Your task to perform on an android device: Clear all items from cart on newegg.com. Image 0: 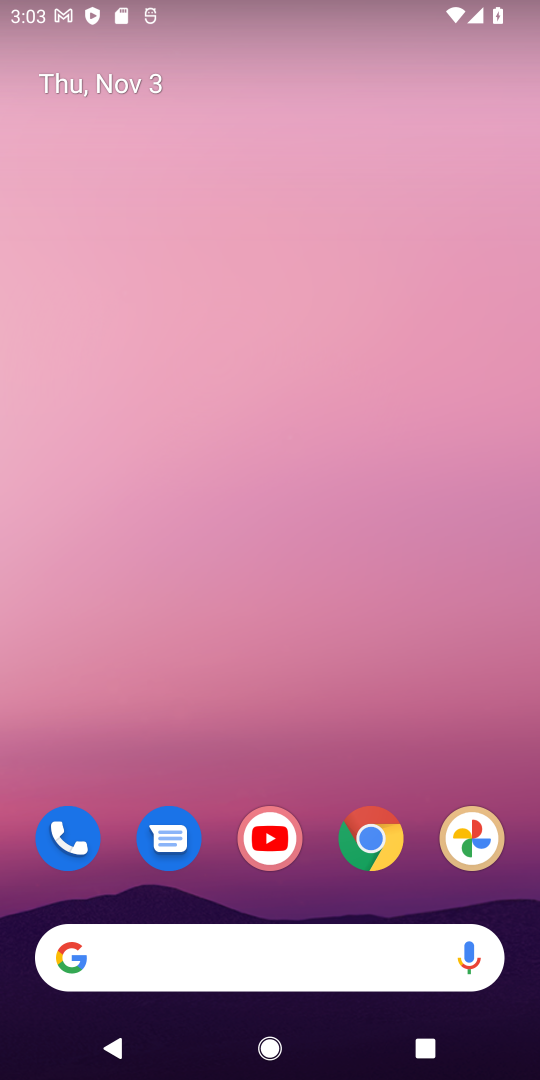
Step 0: drag from (311, 911) to (270, 0)
Your task to perform on an android device: Clear all items from cart on newegg.com. Image 1: 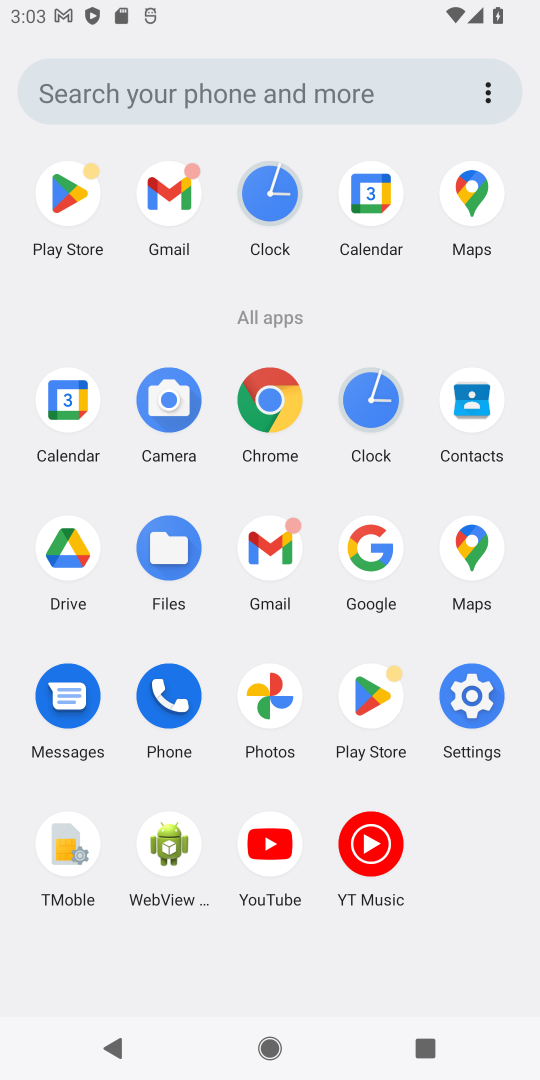
Step 1: click (282, 399)
Your task to perform on an android device: Clear all items from cart on newegg.com. Image 2: 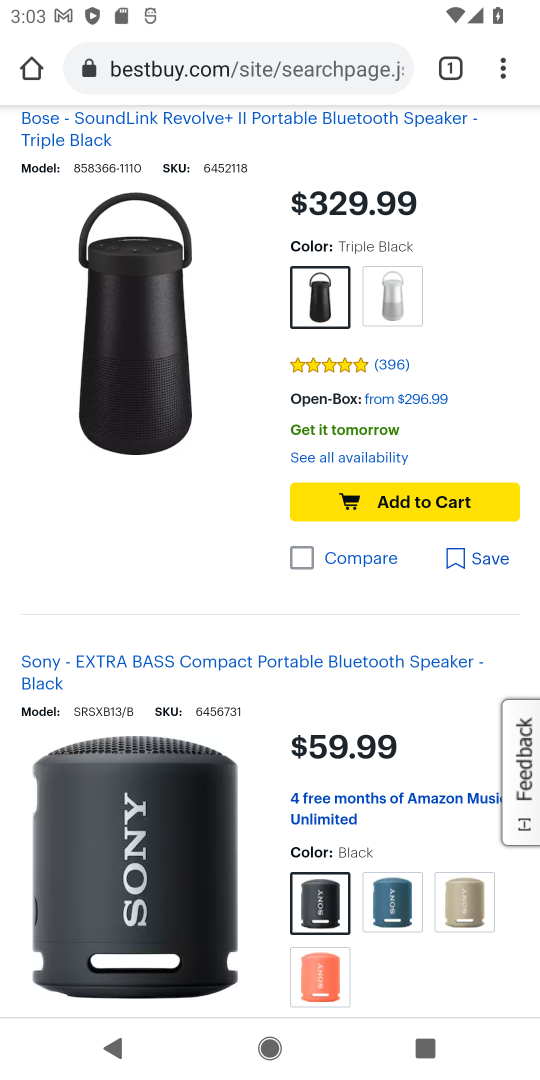
Step 2: click (321, 79)
Your task to perform on an android device: Clear all items from cart on newegg.com. Image 3: 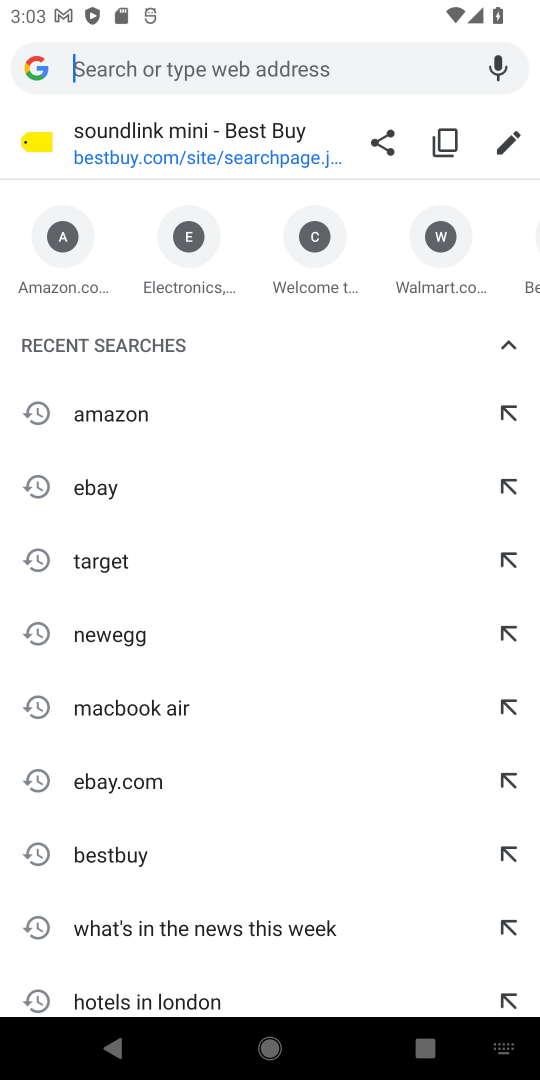
Step 3: type "newegg.com"
Your task to perform on an android device: Clear all items from cart on newegg.com. Image 4: 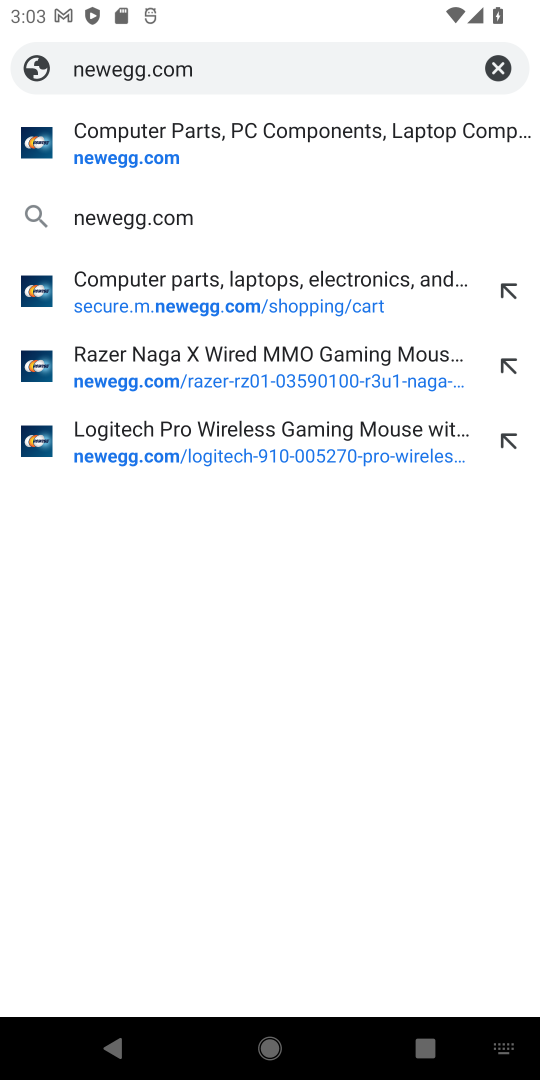
Step 4: press enter
Your task to perform on an android device: Clear all items from cart on newegg.com. Image 5: 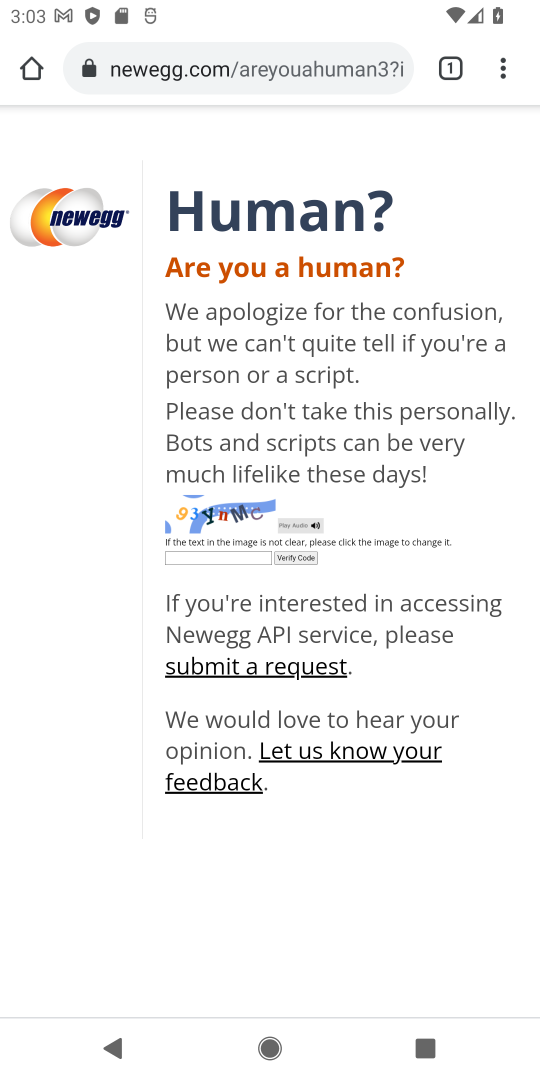
Step 5: click (227, 561)
Your task to perform on an android device: Clear all items from cart on newegg.com. Image 6: 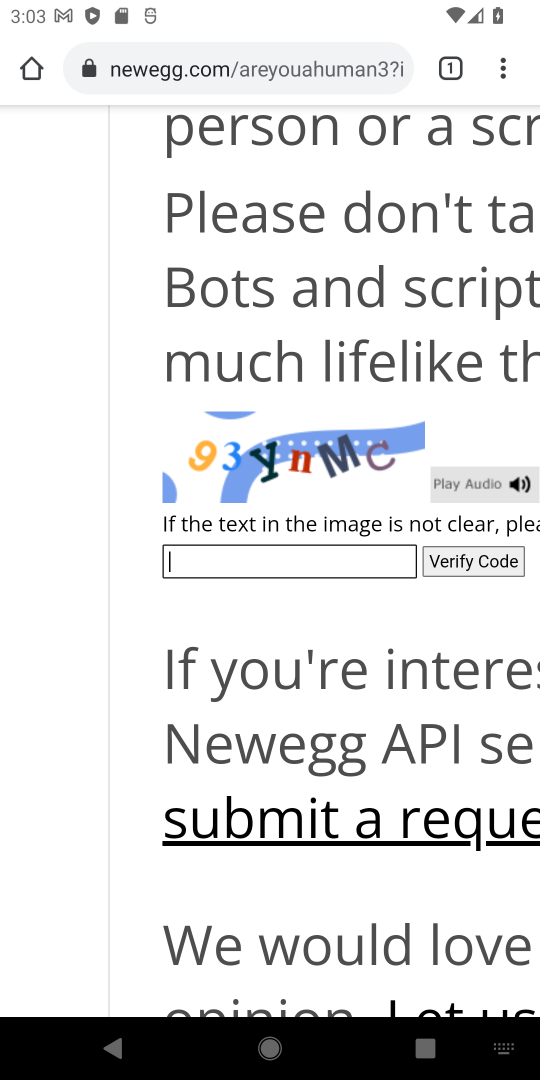
Step 6: type "g3YnMC"
Your task to perform on an android device: Clear all items from cart on newegg.com. Image 7: 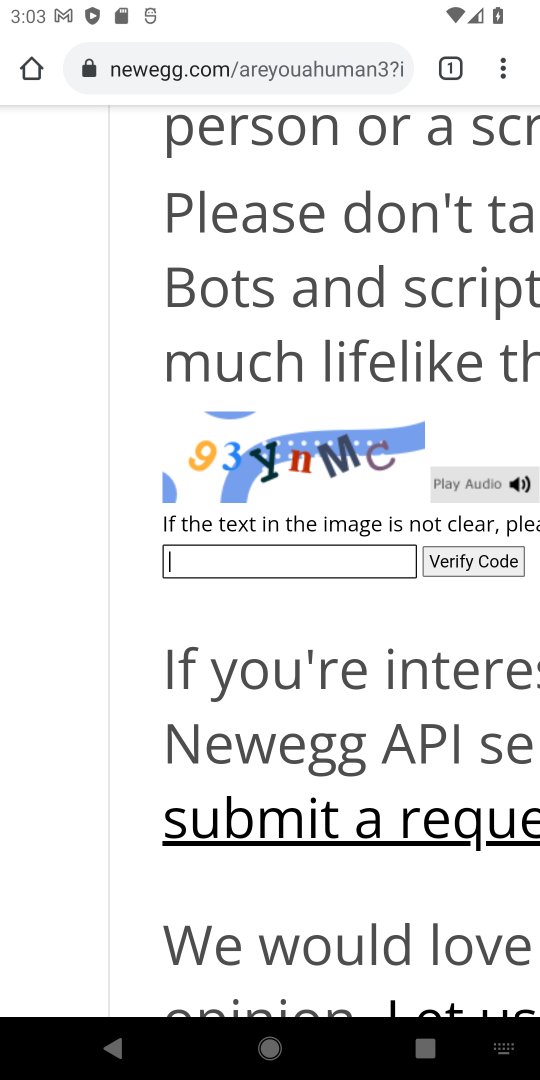
Step 7: type ""
Your task to perform on an android device: Clear all items from cart on newegg.com. Image 8: 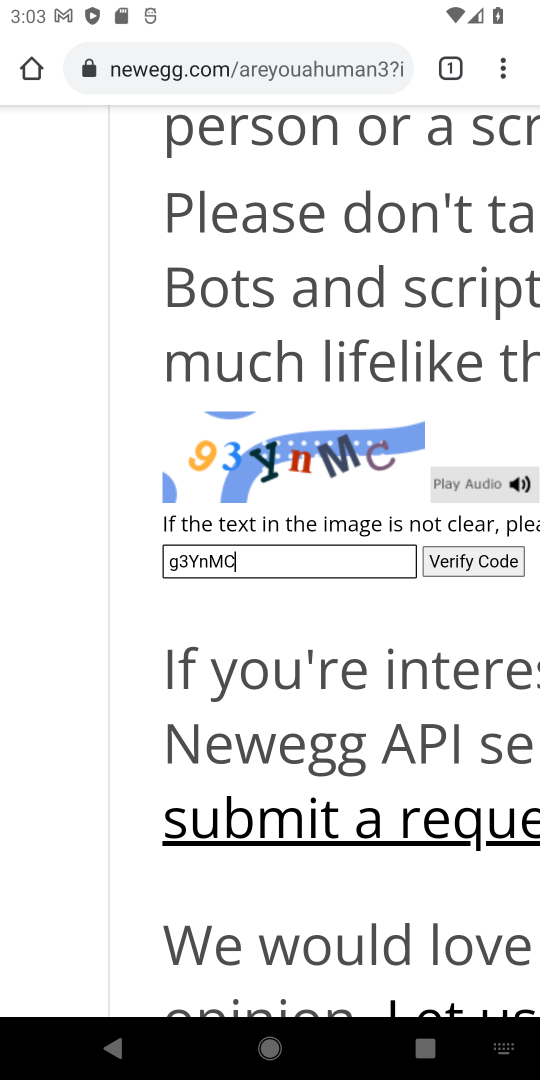
Step 8: click (466, 558)
Your task to perform on an android device: Clear all items from cart on newegg.com. Image 9: 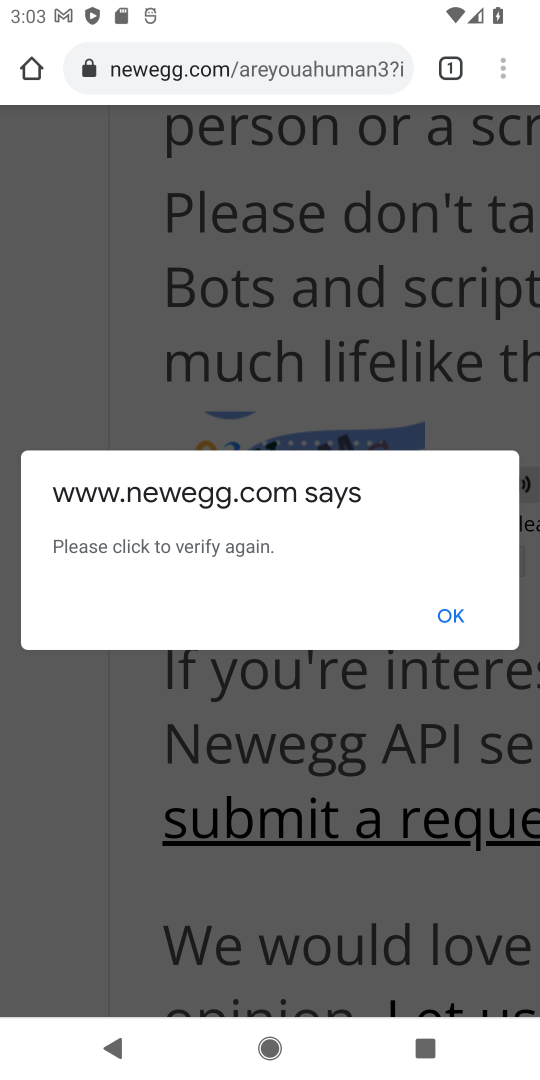
Step 9: click (463, 608)
Your task to perform on an android device: Clear all items from cart on newegg.com. Image 10: 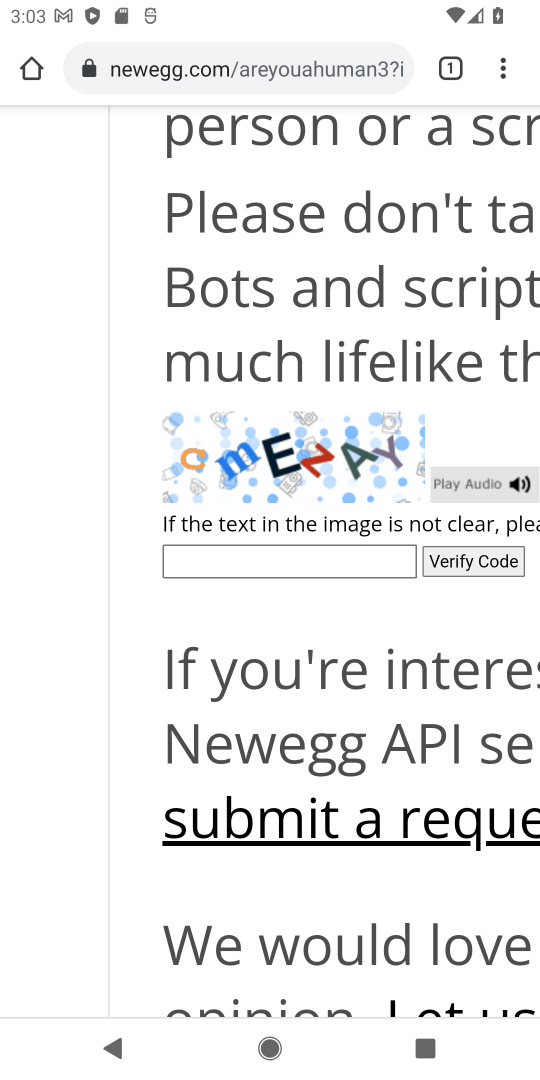
Step 10: click (300, 586)
Your task to perform on an android device: Clear all items from cart on newegg.com. Image 11: 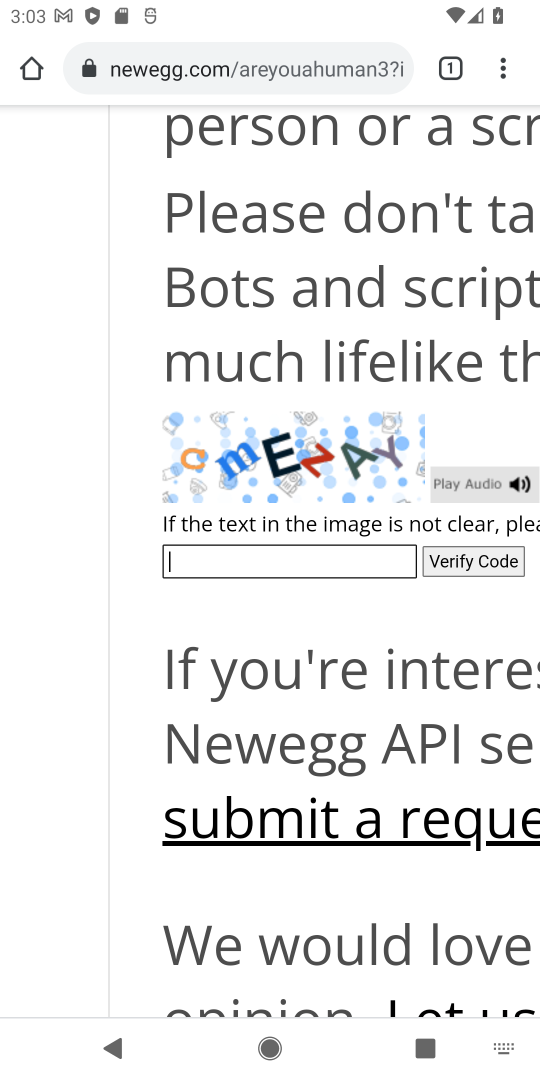
Step 11: click (298, 564)
Your task to perform on an android device: Clear all items from cart on newegg.com. Image 12: 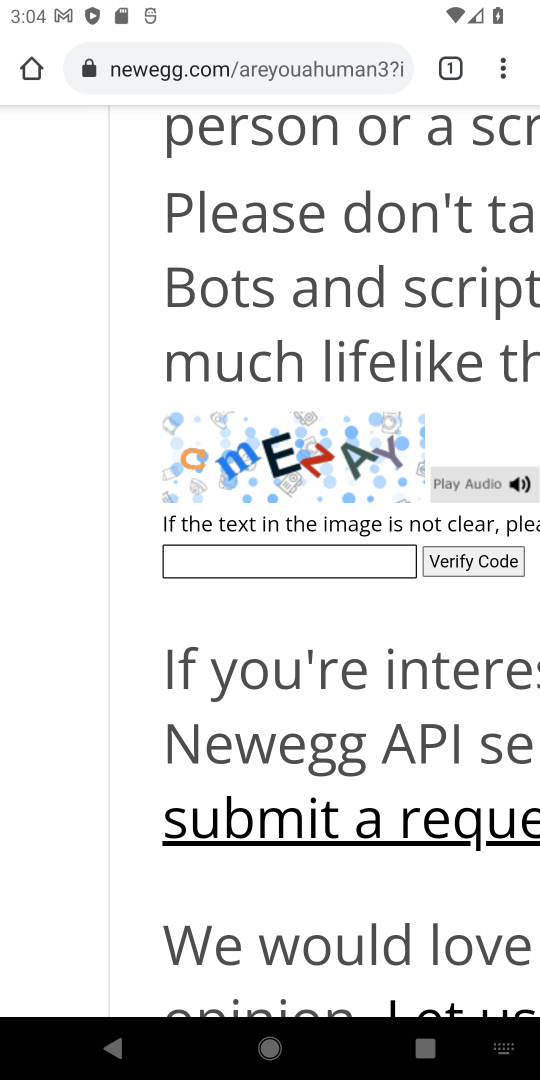
Step 12: type "cmEzAY"
Your task to perform on an android device: Clear all items from cart on newegg.com. Image 13: 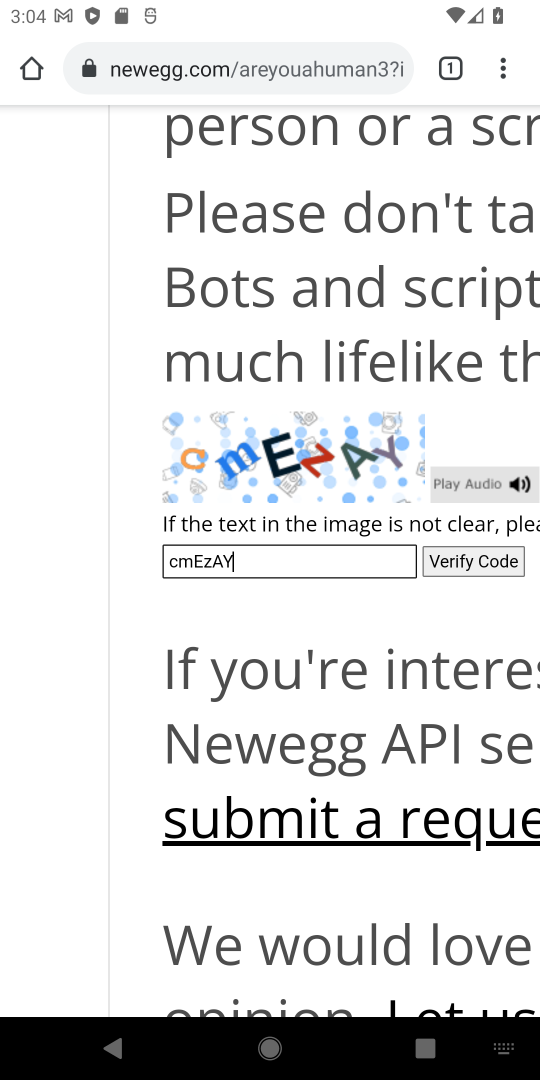
Step 13: press enter
Your task to perform on an android device: Clear all items from cart on newegg.com. Image 14: 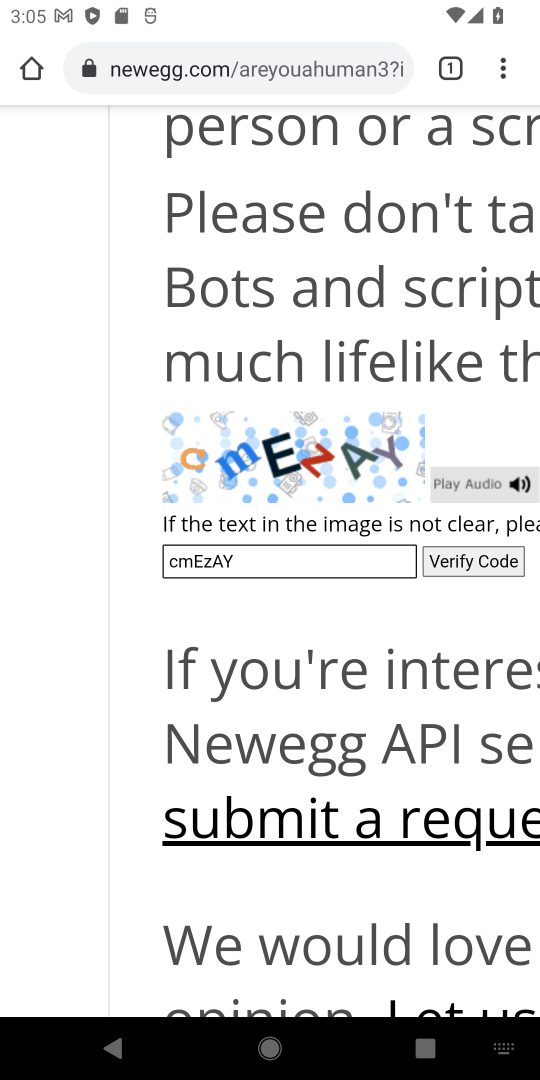
Step 14: click (482, 563)
Your task to perform on an android device: Clear all items from cart on newegg.com. Image 15: 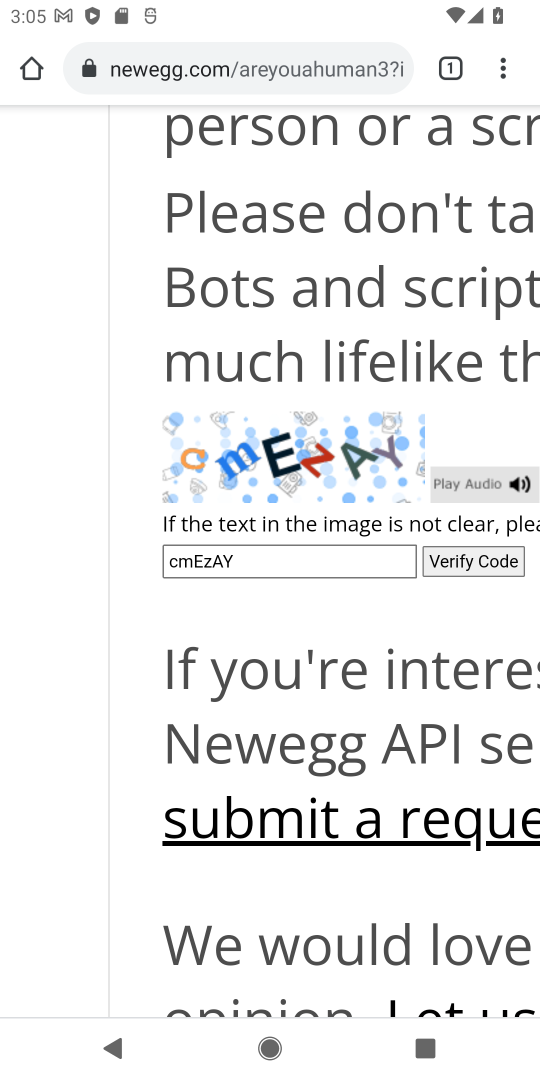
Step 15: click (449, 564)
Your task to perform on an android device: Clear all items from cart on newegg.com. Image 16: 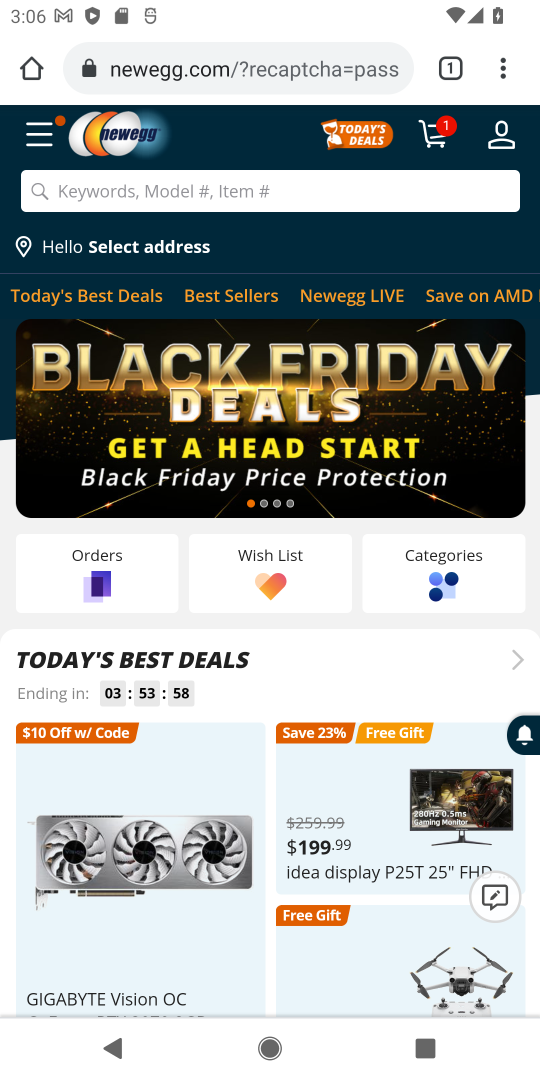
Step 16: click (429, 139)
Your task to perform on an android device: Clear all items from cart on newegg.com. Image 17: 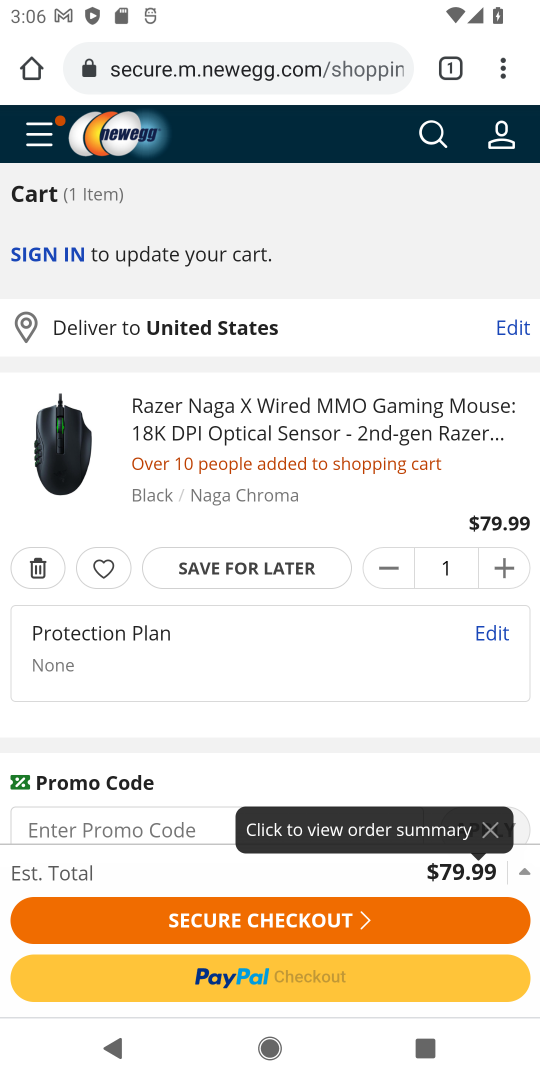
Step 17: click (32, 566)
Your task to perform on an android device: Clear all items from cart on newegg.com. Image 18: 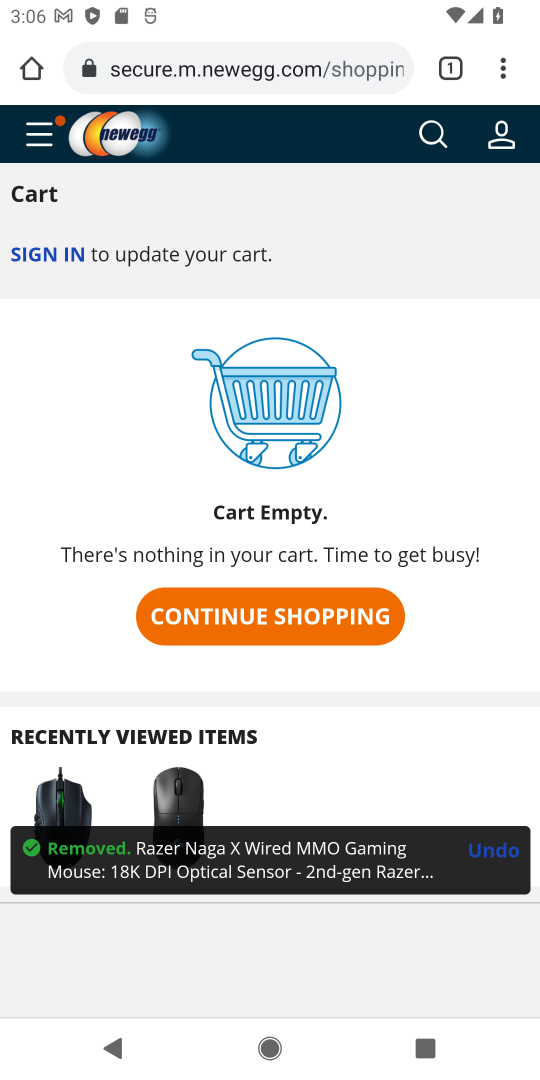
Step 18: task complete